Your task to perform on an android device: turn on showing notifications on the lock screen Image 0: 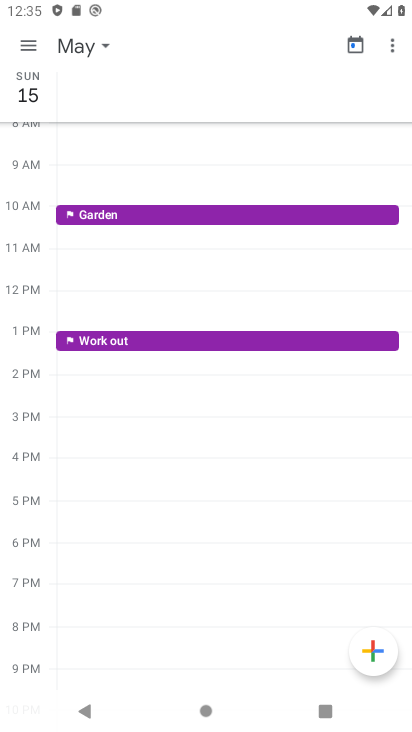
Step 0: click (209, 714)
Your task to perform on an android device: turn on showing notifications on the lock screen Image 1: 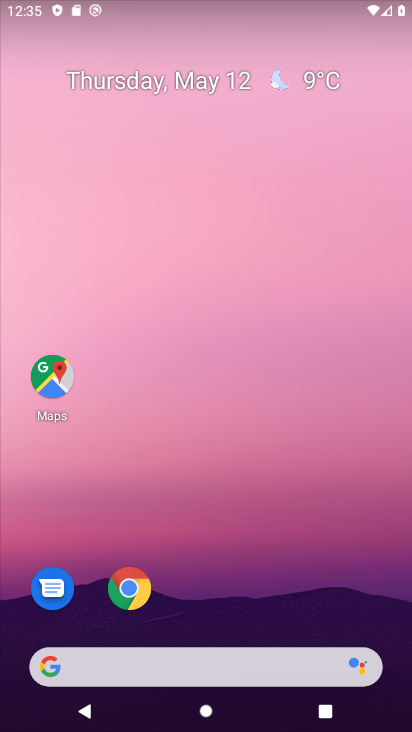
Step 1: drag from (281, 557) to (157, 28)
Your task to perform on an android device: turn on showing notifications on the lock screen Image 2: 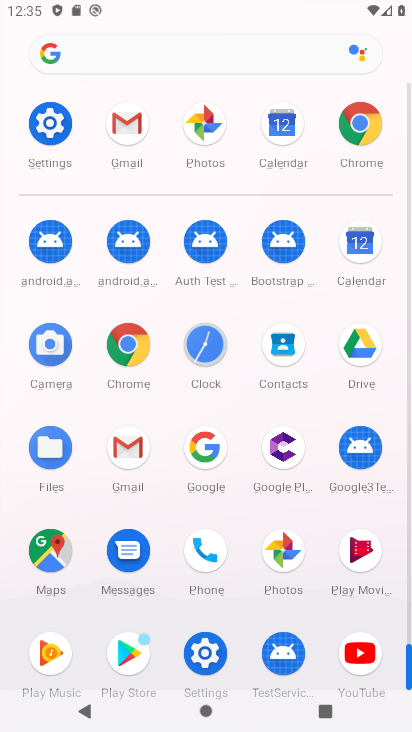
Step 2: click (46, 127)
Your task to perform on an android device: turn on showing notifications on the lock screen Image 3: 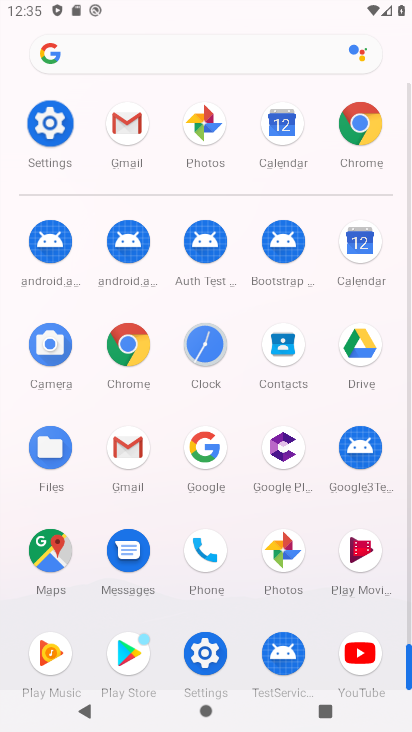
Step 3: click (46, 127)
Your task to perform on an android device: turn on showing notifications on the lock screen Image 4: 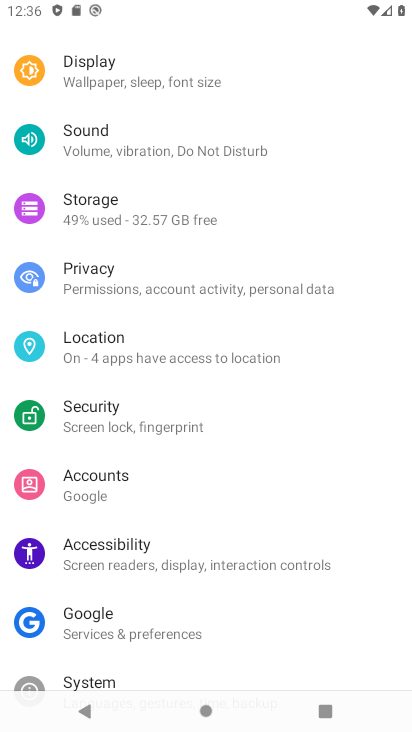
Step 4: drag from (128, 282) to (181, 609)
Your task to perform on an android device: turn on showing notifications on the lock screen Image 5: 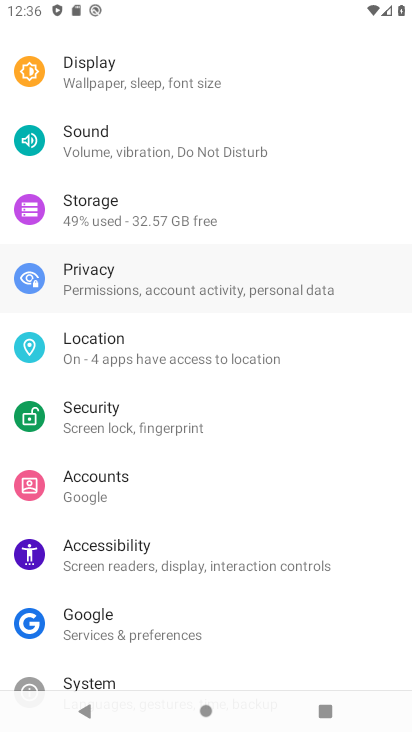
Step 5: drag from (127, 300) to (151, 536)
Your task to perform on an android device: turn on showing notifications on the lock screen Image 6: 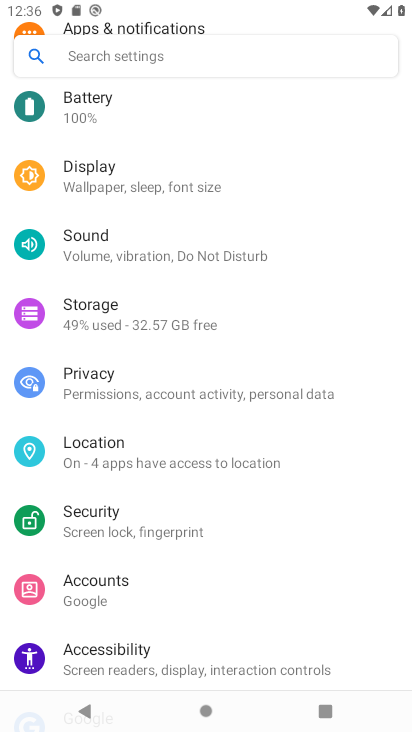
Step 6: drag from (135, 212) to (167, 440)
Your task to perform on an android device: turn on showing notifications on the lock screen Image 7: 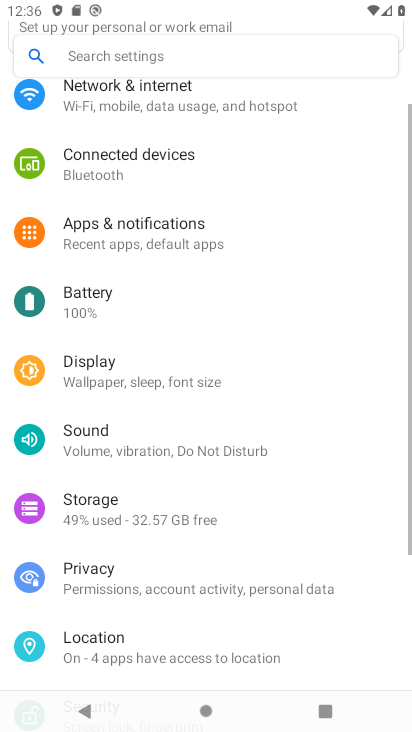
Step 7: drag from (129, 119) to (200, 520)
Your task to perform on an android device: turn on showing notifications on the lock screen Image 8: 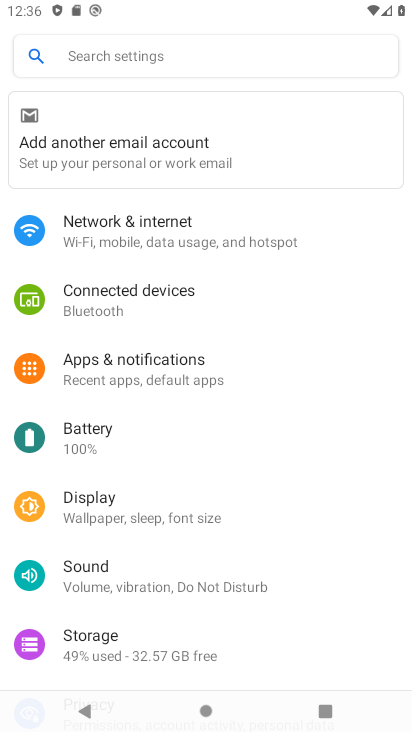
Step 8: click (100, 40)
Your task to perform on an android device: turn on showing notifications on the lock screen Image 9: 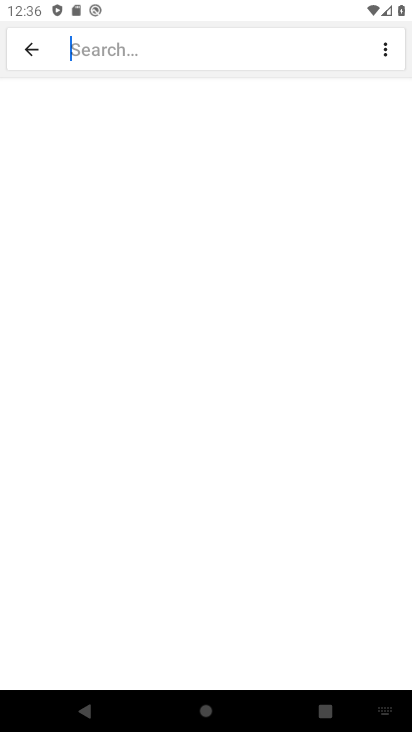
Step 9: click (109, 361)
Your task to perform on an android device: turn on showing notifications on the lock screen Image 10: 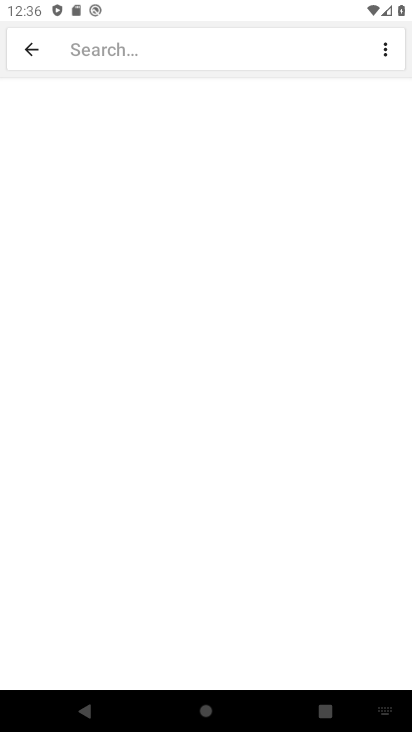
Step 10: click (115, 364)
Your task to perform on an android device: turn on showing notifications on the lock screen Image 11: 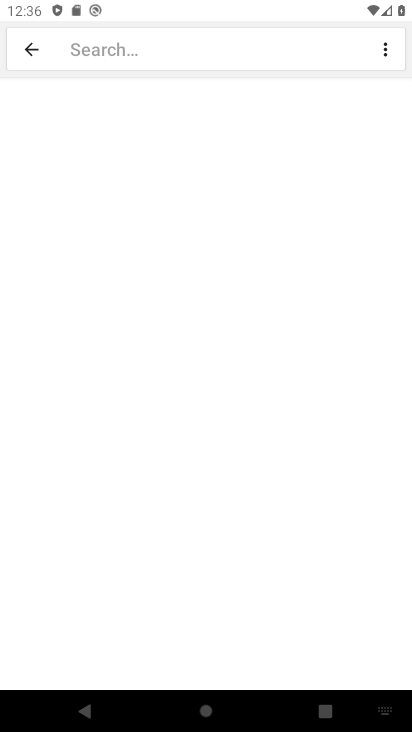
Step 11: click (115, 364)
Your task to perform on an android device: turn on showing notifications on the lock screen Image 12: 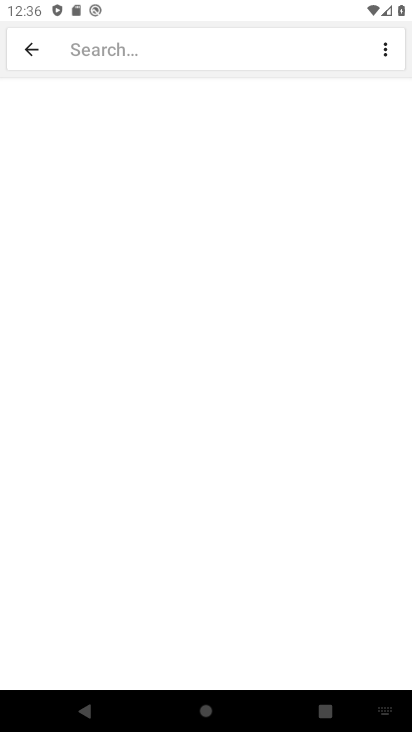
Step 12: click (113, 360)
Your task to perform on an android device: turn on showing notifications on the lock screen Image 13: 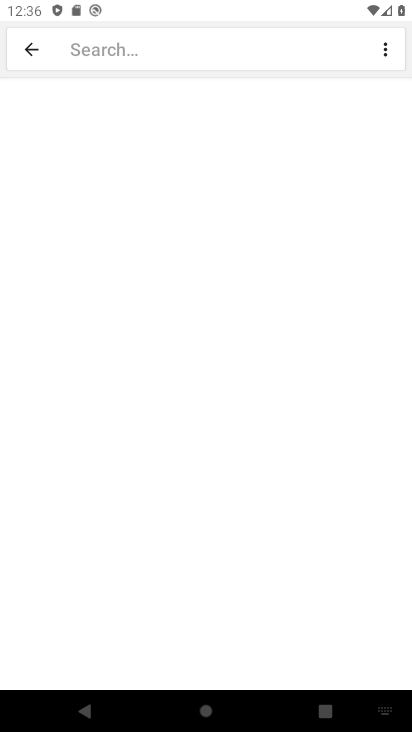
Step 13: click (35, 53)
Your task to perform on an android device: turn on showing notifications on the lock screen Image 14: 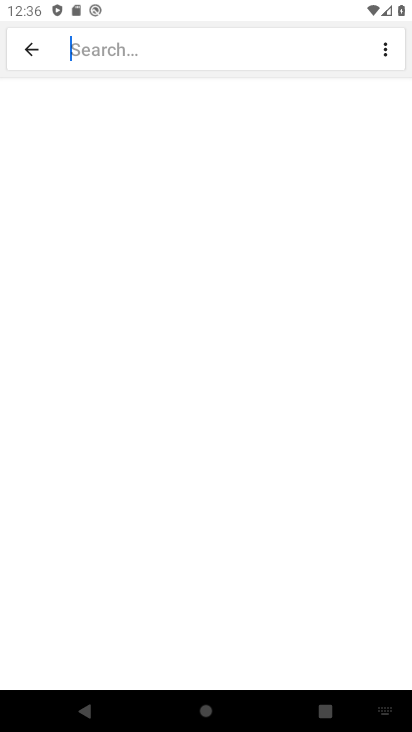
Step 14: click (35, 53)
Your task to perform on an android device: turn on showing notifications on the lock screen Image 15: 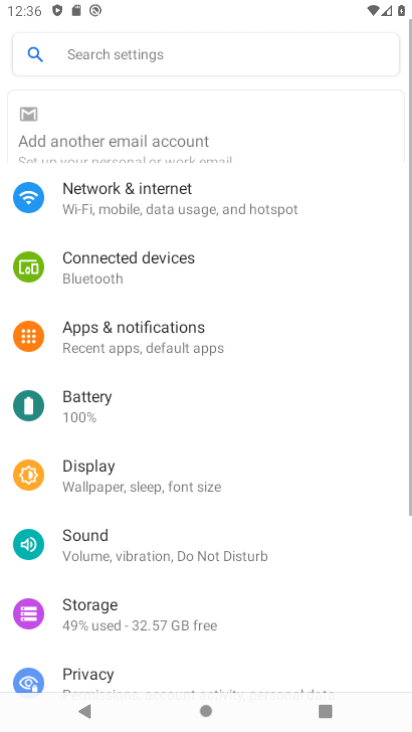
Step 15: click (35, 53)
Your task to perform on an android device: turn on showing notifications on the lock screen Image 16: 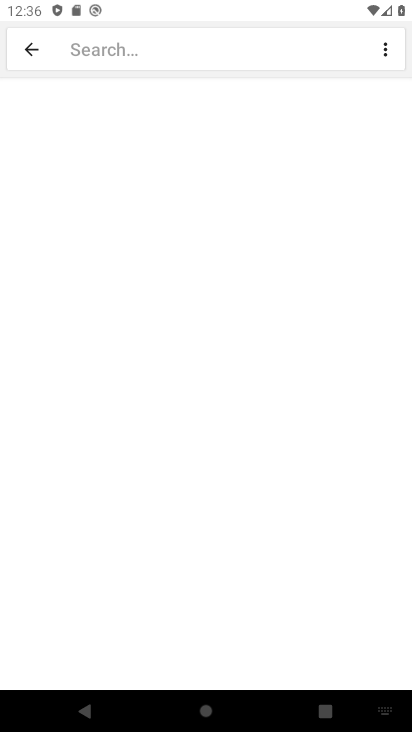
Step 16: click (75, 45)
Your task to perform on an android device: turn on showing notifications on the lock screen Image 17: 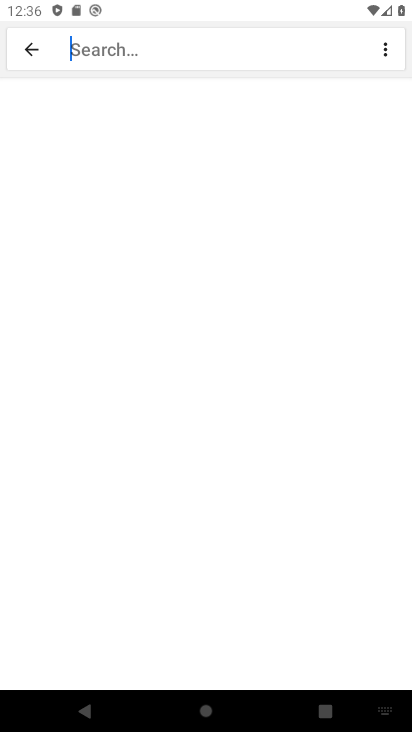
Step 17: click (75, 45)
Your task to perform on an android device: turn on showing notifications on the lock screen Image 18: 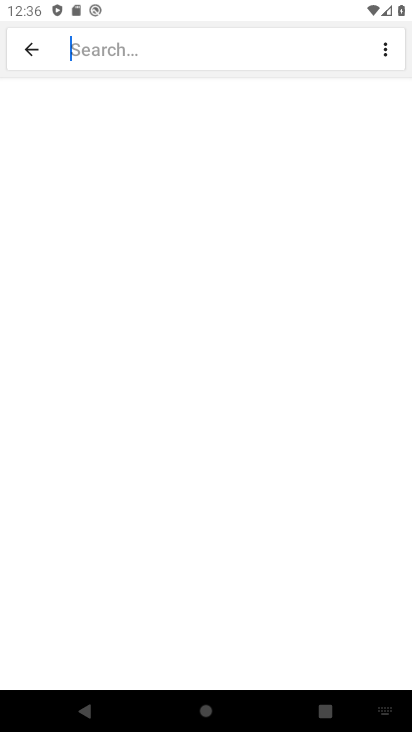
Step 18: click (30, 45)
Your task to perform on an android device: turn on showing notifications on the lock screen Image 19: 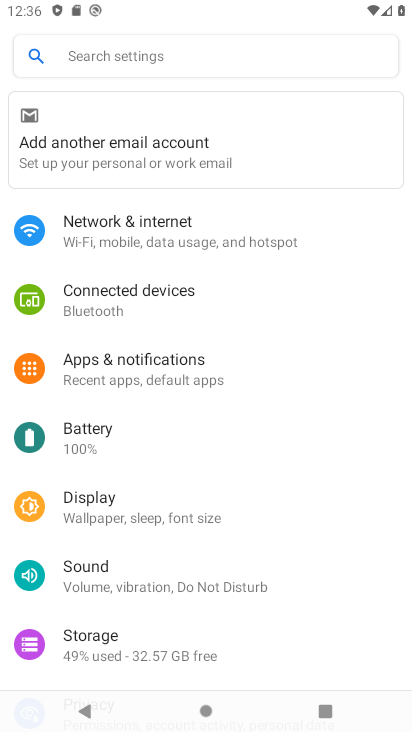
Step 19: click (130, 365)
Your task to perform on an android device: turn on showing notifications on the lock screen Image 20: 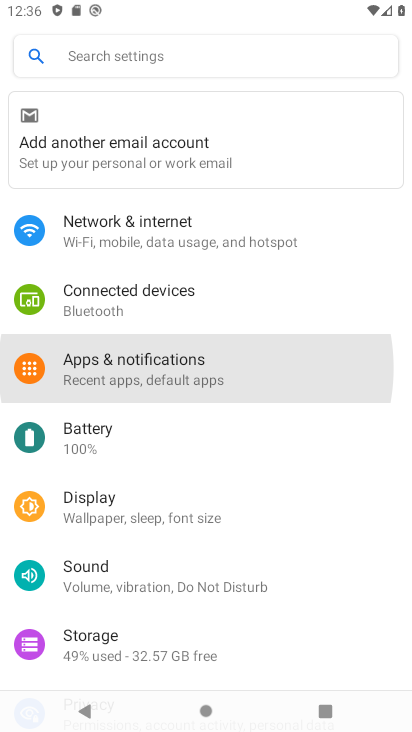
Step 20: click (130, 365)
Your task to perform on an android device: turn on showing notifications on the lock screen Image 21: 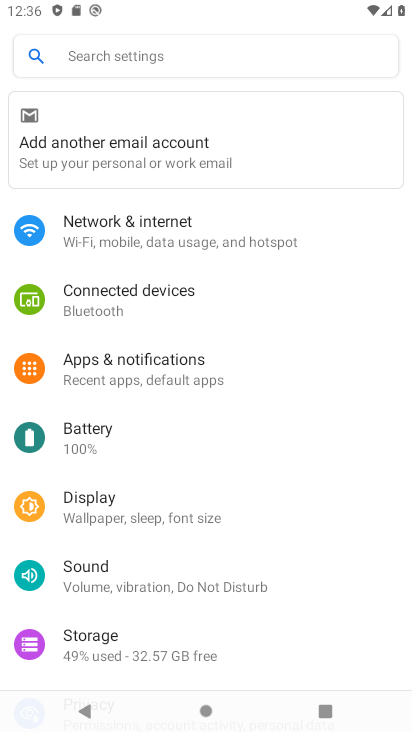
Step 21: click (130, 365)
Your task to perform on an android device: turn on showing notifications on the lock screen Image 22: 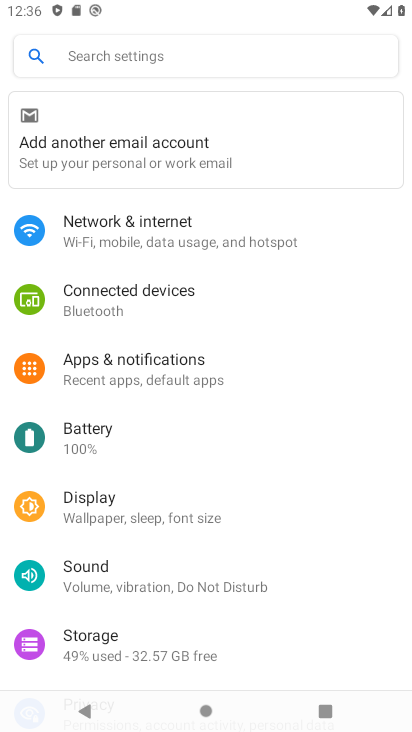
Step 22: click (130, 365)
Your task to perform on an android device: turn on showing notifications on the lock screen Image 23: 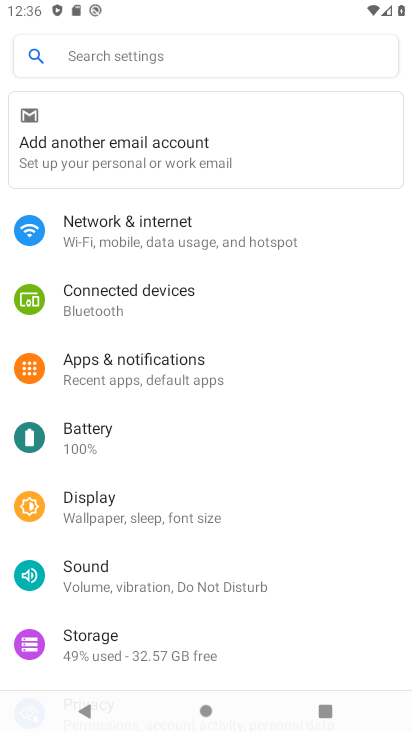
Step 23: click (130, 364)
Your task to perform on an android device: turn on showing notifications on the lock screen Image 24: 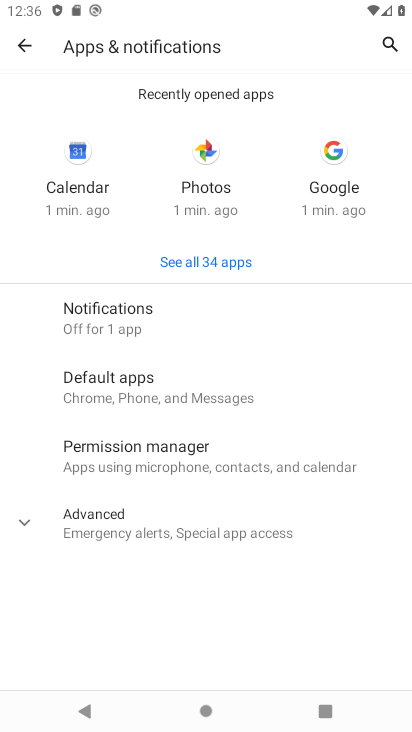
Step 24: click (91, 313)
Your task to perform on an android device: turn on showing notifications on the lock screen Image 25: 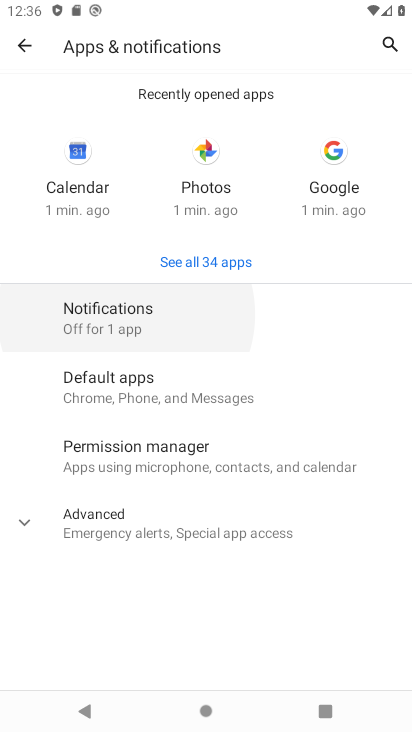
Step 25: click (91, 313)
Your task to perform on an android device: turn on showing notifications on the lock screen Image 26: 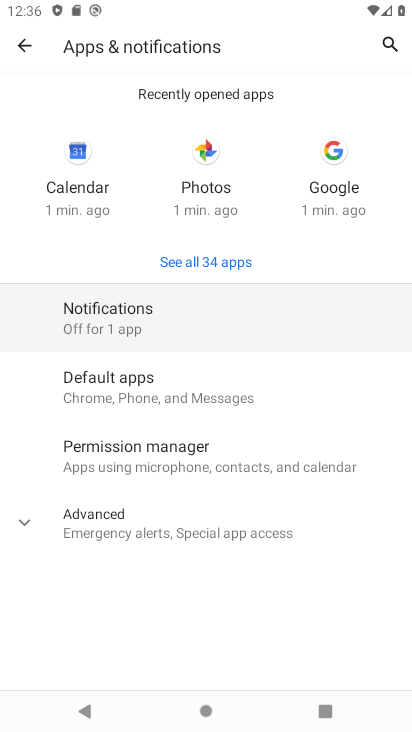
Step 26: click (91, 313)
Your task to perform on an android device: turn on showing notifications on the lock screen Image 27: 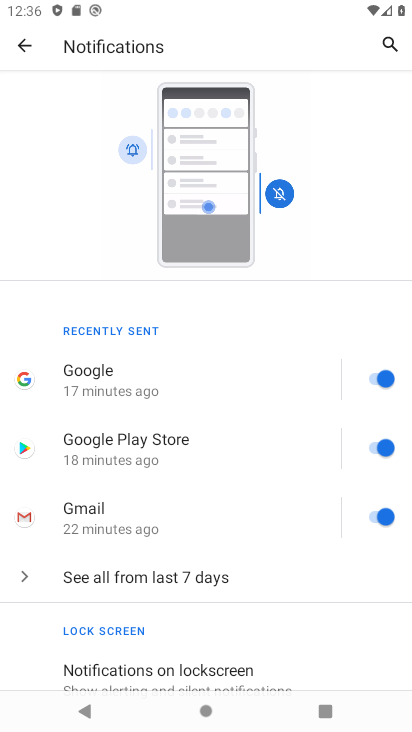
Step 27: drag from (148, 467) to (104, 255)
Your task to perform on an android device: turn on showing notifications on the lock screen Image 28: 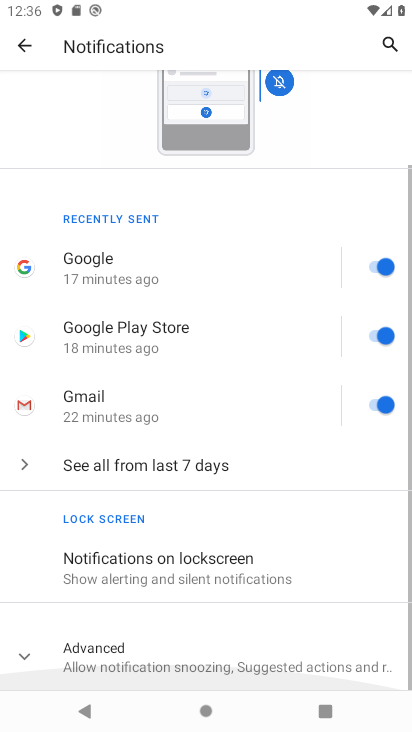
Step 28: drag from (192, 534) to (143, 200)
Your task to perform on an android device: turn on showing notifications on the lock screen Image 29: 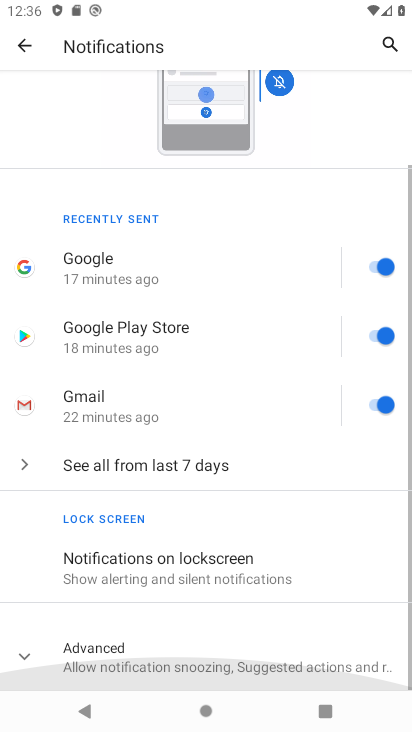
Step 29: drag from (248, 620) to (254, 289)
Your task to perform on an android device: turn on showing notifications on the lock screen Image 30: 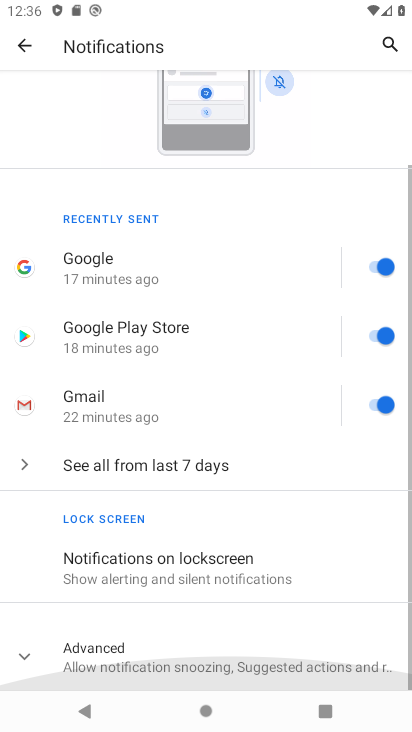
Step 30: drag from (270, 497) to (217, 179)
Your task to perform on an android device: turn on showing notifications on the lock screen Image 31: 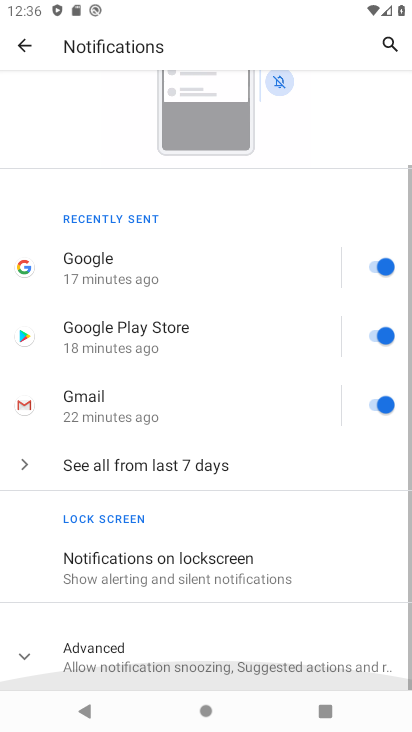
Step 31: drag from (185, 441) to (153, 184)
Your task to perform on an android device: turn on showing notifications on the lock screen Image 32: 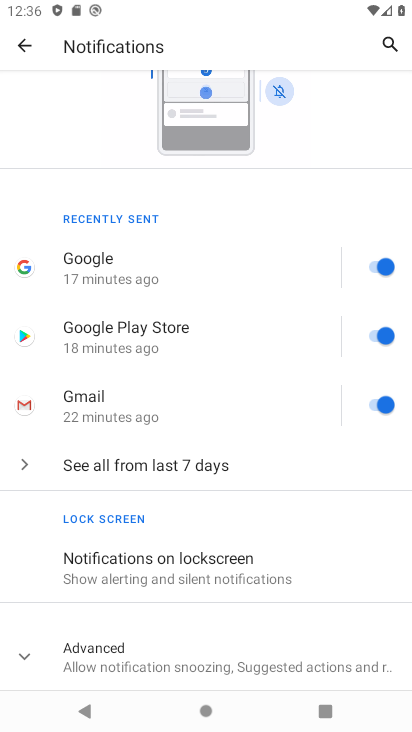
Step 32: click (109, 572)
Your task to perform on an android device: turn on showing notifications on the lock screen Image 33: 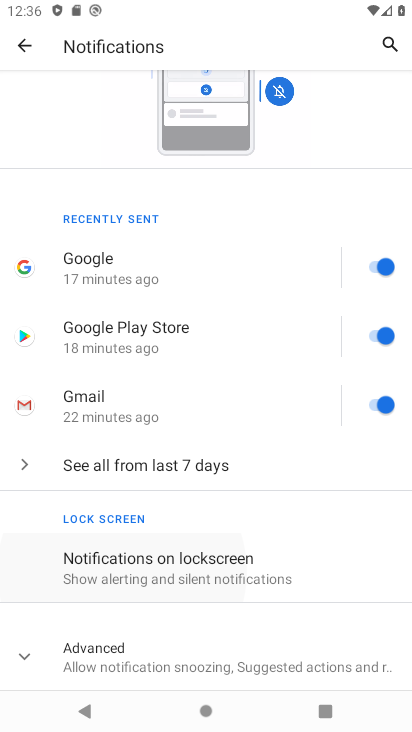
Step 33: click (109, 572)
Your task to perform on an android device: turn on showing notifications on the lock screen Image 34: 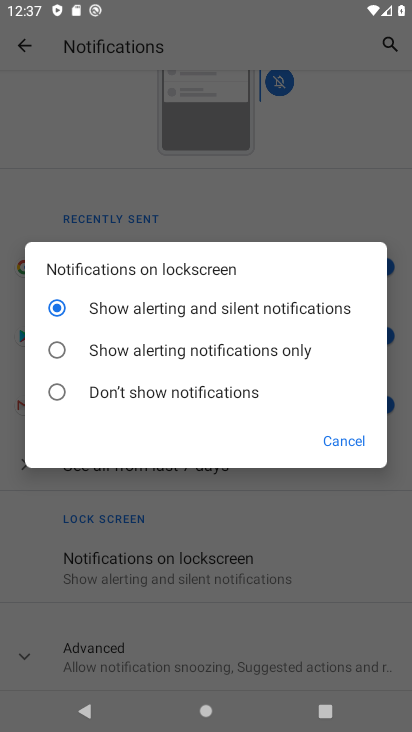
Step 34: click (341, 439)
Your task to perform on an android device: turn on showing notifications on the lock screen Image 35: 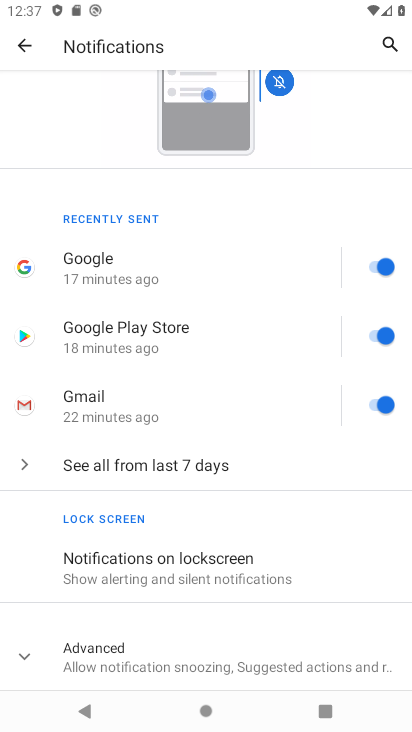
Step 35: task complete